Your task to perform on an android device: set the timer Image 0: 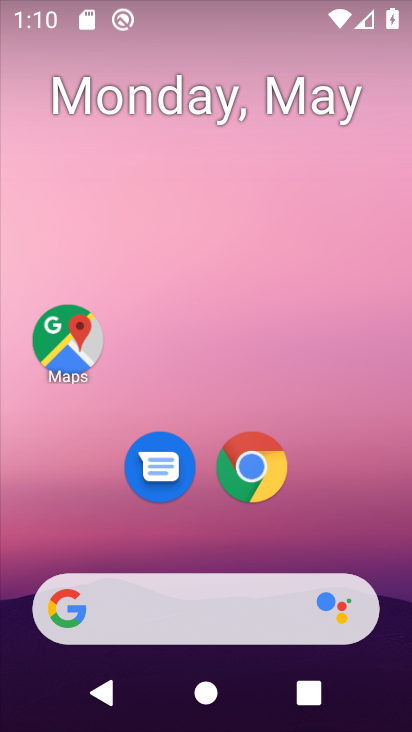
Step 0: drag from (221, 568) to (327, 79)
Your task to perform on an android device: set the timer Image 1: 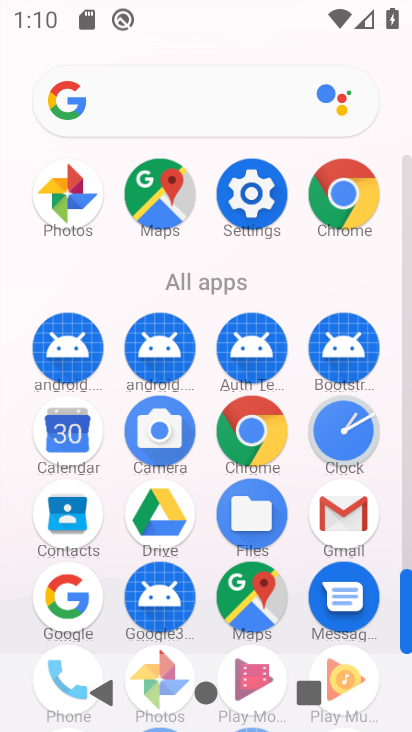
Step 1: click (350, 439)
Your task to perform on an android device: set the timer Image 2: 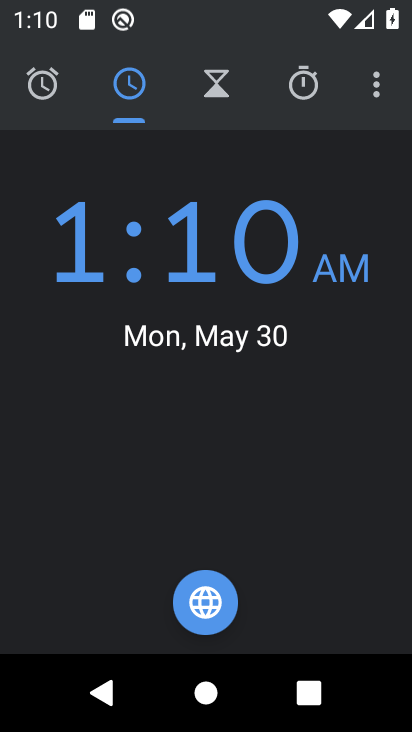
Step 2: click (223, 117)
Your task to perform on an android device: set the timer Image 3: 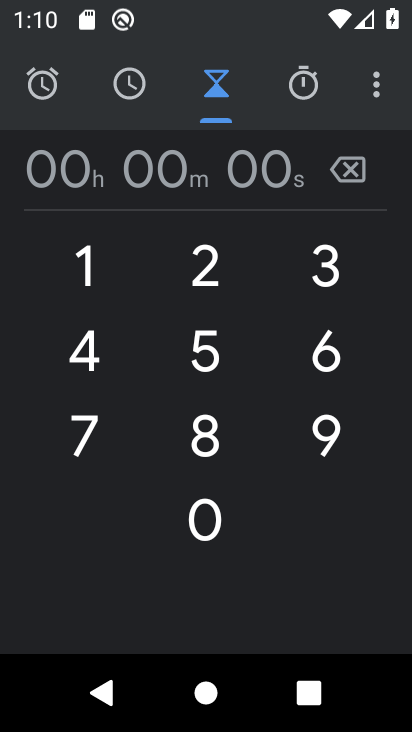
Step 3: click (197, 269)
Your task to perform on an android device: set the timer Image 4: 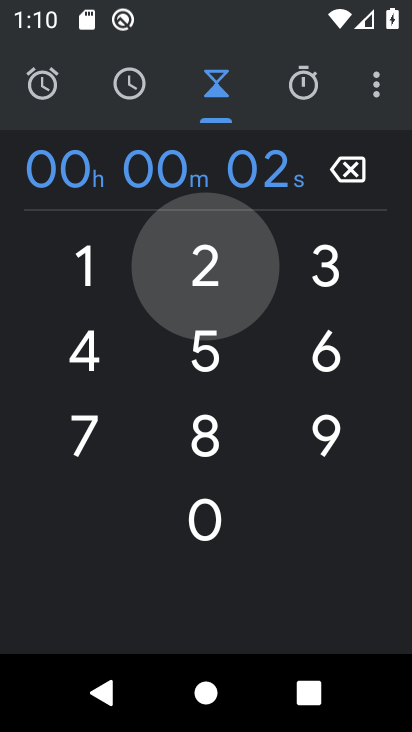
Step 4: click (201, 337)
Your task to perform on an android device: set the timer Image 5: 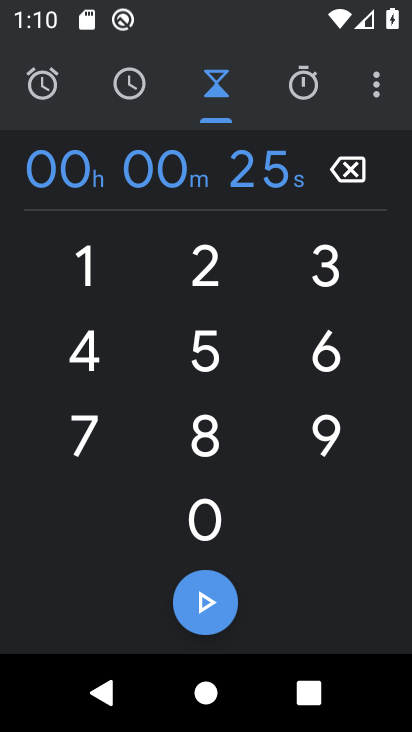
Step 5: click (230, 616)
Your task to perform on an android device: set the timer Image 6: 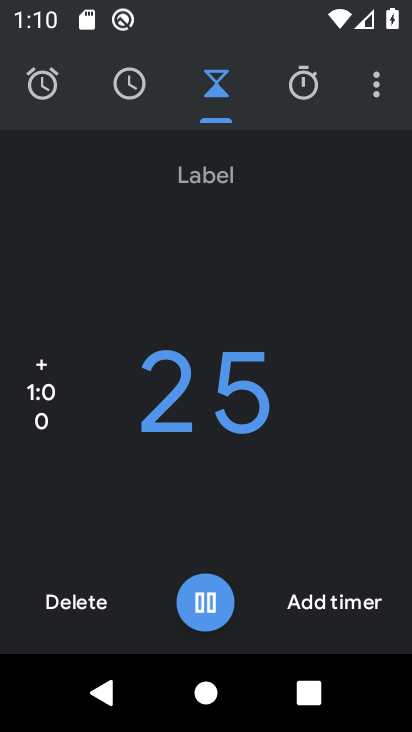
Step 6: task complete